Your task to perform on an android device: Play the last video I watched on Youtube Image 0: 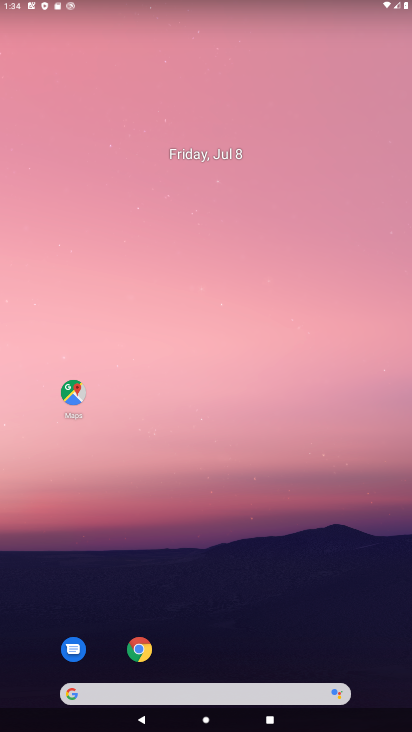
Step 0: drag from (30, 697) to (185, 158)
Your task to perform on an android device: Play the last video I watched on Youtube Image 1: 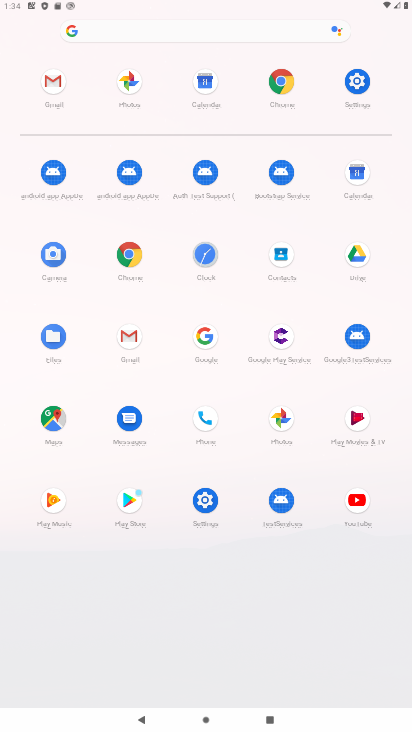
Step 1: click (365, 507)
Your task to perform on an android device: Play the last video I watched on Youtube Image 2: 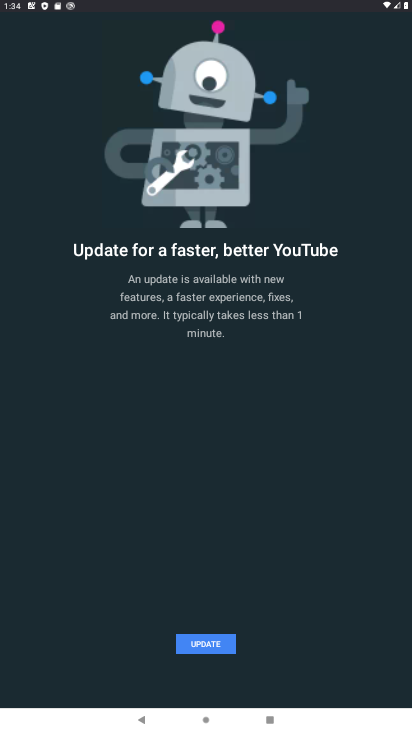
Step 2: click (197, 650)
Your task to perform on an android device: Play the last video I watched on Youtube Image 3: 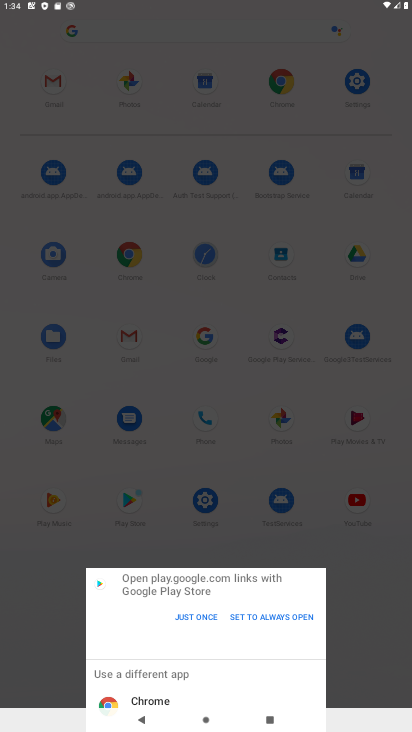
Step 3: click (197, 613)
Your task to perform on an android device: Play the last video I watched on Youtube Image 4: 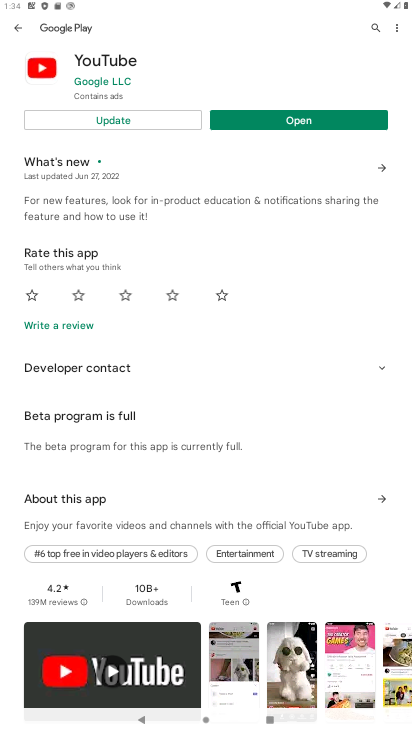
Step 4: click (296, 128)
Your task to perform on an android device: Play the last video I watched on Youtube Image 5: 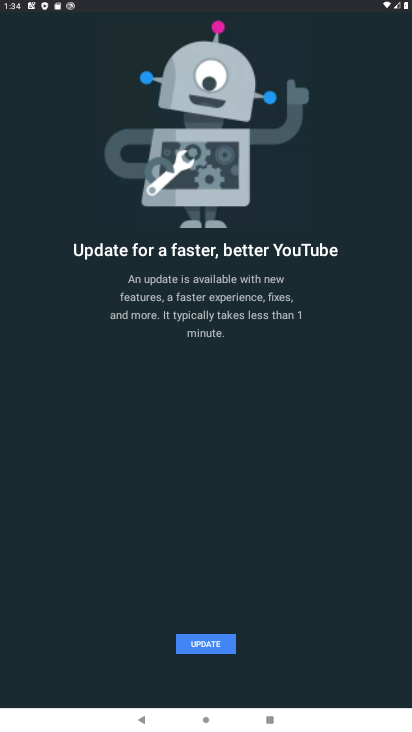
Step 5: task complete